Your task to perform on an android device: turn off javascript in the chrome app Image 0: 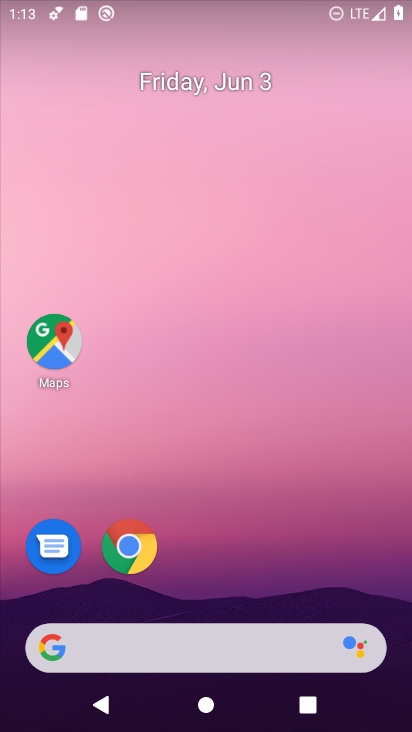
Step 0: click (132, 546)
Your task to perform on an android device: turn off javascript in the chrome app Image 1: 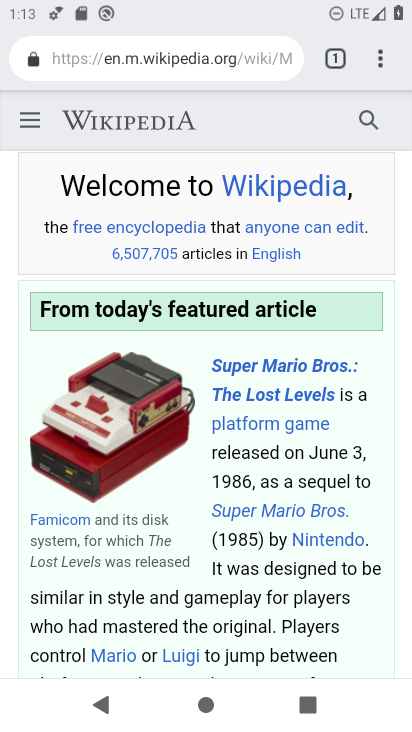
Step 1: click (380, 60)
Your task to perform on an android device: turn off javascript in the chrome app Image 2: 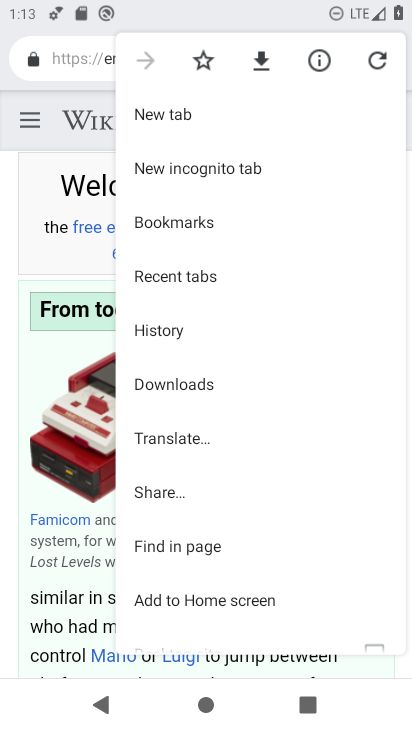
Step 2: drag from (206, 478) to (251, 387)
Your task to perform on an android device: turn off javascript in the chrome app Image 3: 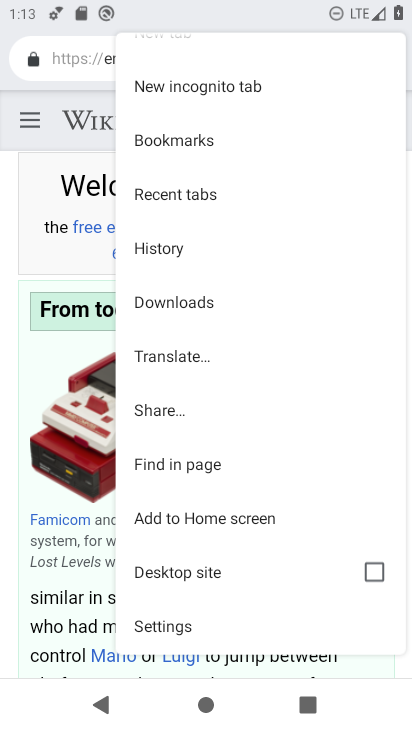
Step 3: drag from (214, 494) to (236, 431)
Your task to perform on an android device: turn off javascript in the chrome app Image 4: 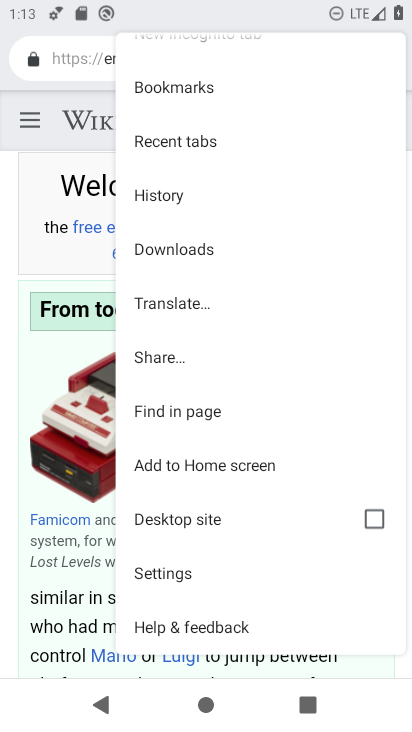
Step 4: drag from (183, 542) to (239, 466)
Your task to perform on an android device: turn off javascript in the chrome app Image 5: 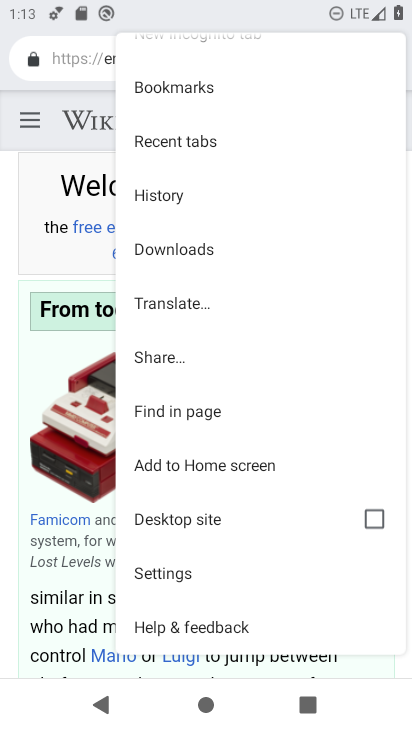
Step 5: click (156, 567)
Your task to perform on an android device: turn off javascript in the chrome app Image 6: 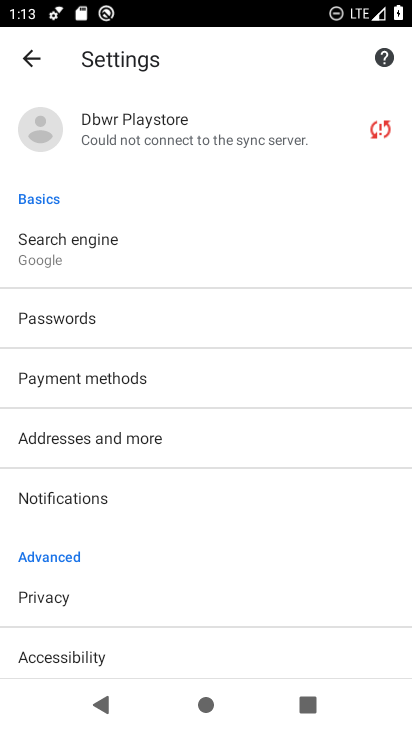
Step 6: drag from (86, 525) to (138, 431)
Your task to perform on an android device: turn off javascript in the chrome app Image 7: 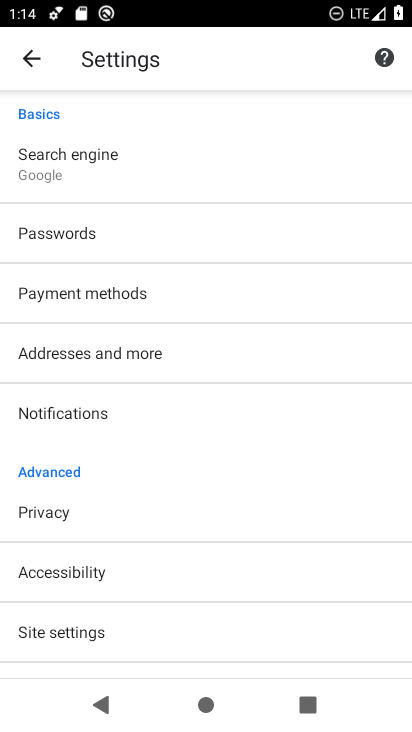
Step 7: drag from (93, 444) to (148, 363)
Your task to perform on an android device: turn off javascript in the chrome app Image 8: 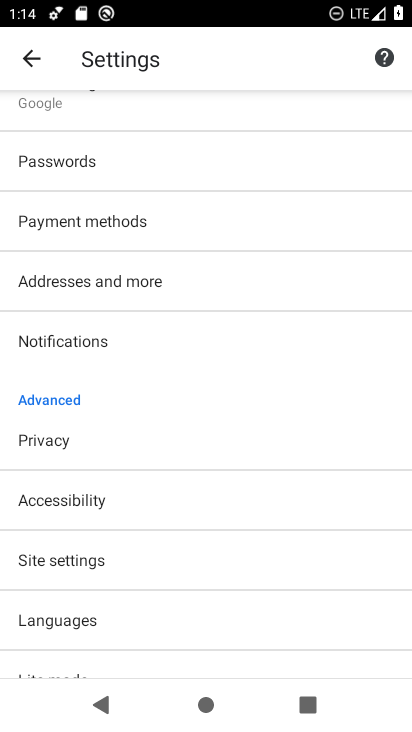
Step 8: click (96, 559)
Your task to perform on an android device: turn off javascript in the chrome app Image 9: 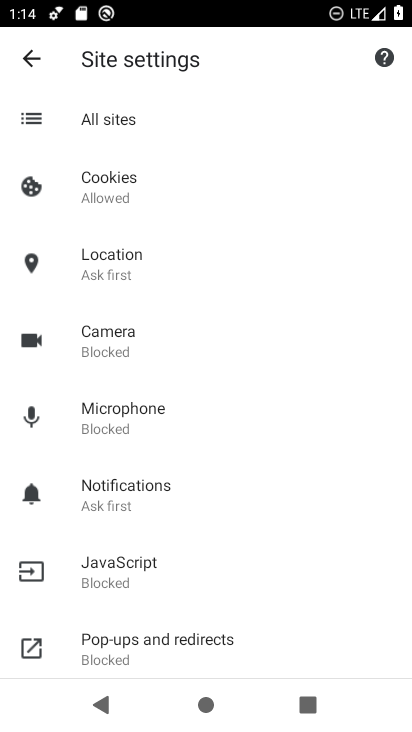
Step 9: click (148, 570)
Your task to perform on an android device: turn off javascript in the chrome app Image 10: 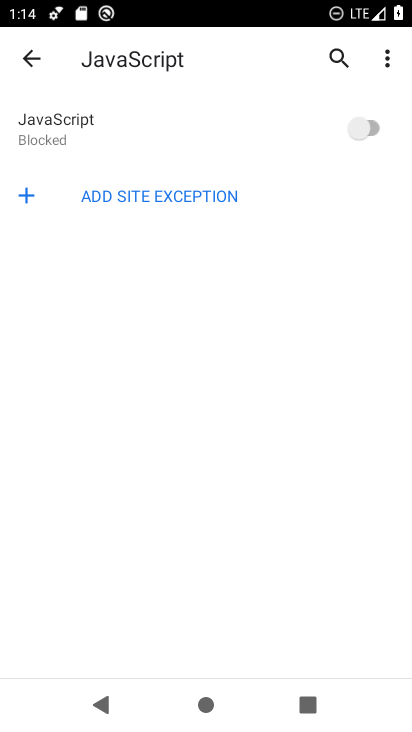
Step 10: task complete